Your task to perform on an android device: install app "Duolingo: language lessons" Image 0: 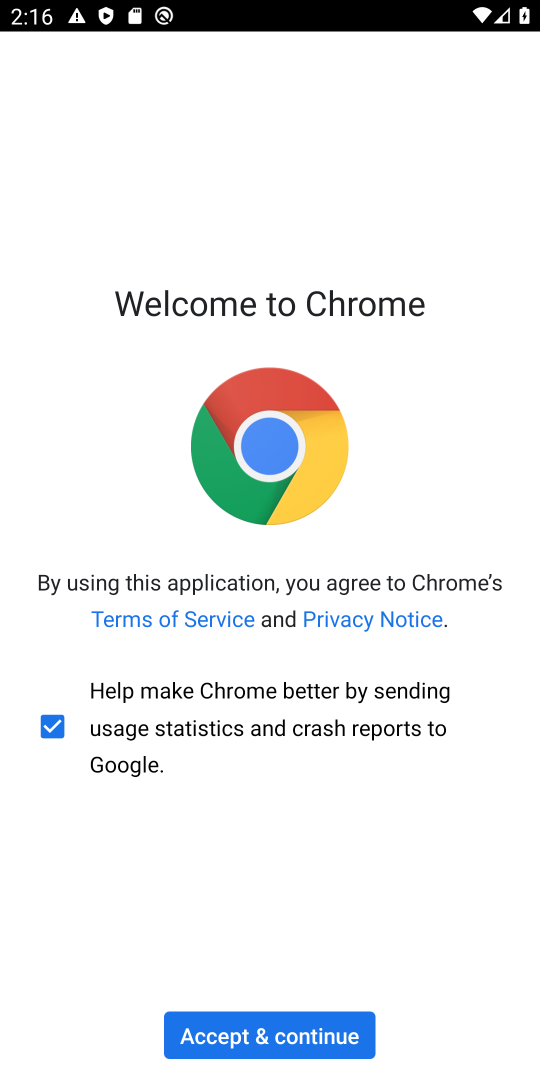
Step 0: press home button
Your task to perform on an android device: install app "Duolingo: language lessons" Image 1: 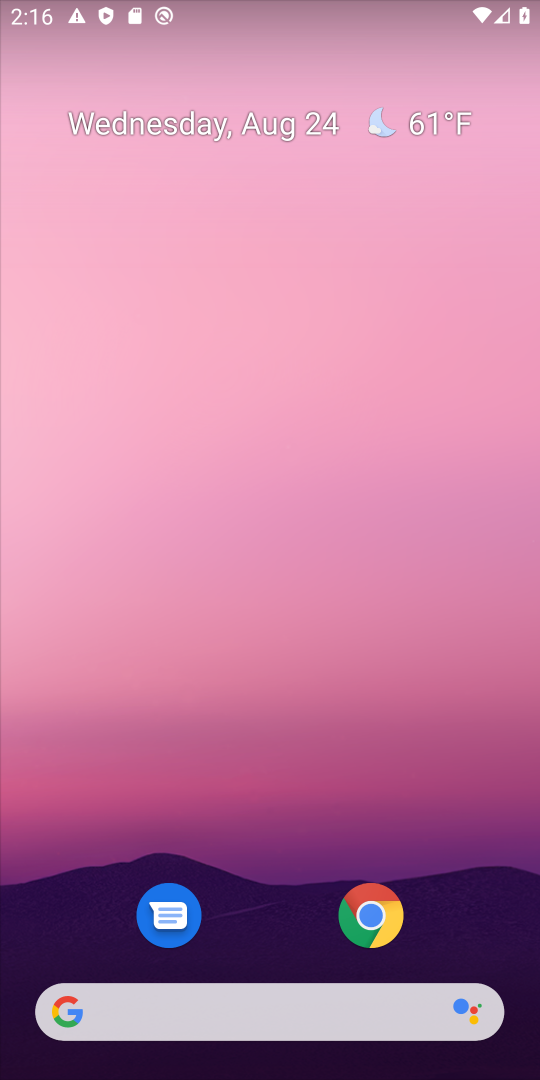
Step 1: drag from (281, 863) to (316, 127)
Your task to perform on an android device: install app "Duolingo: language lessons" Image 2: 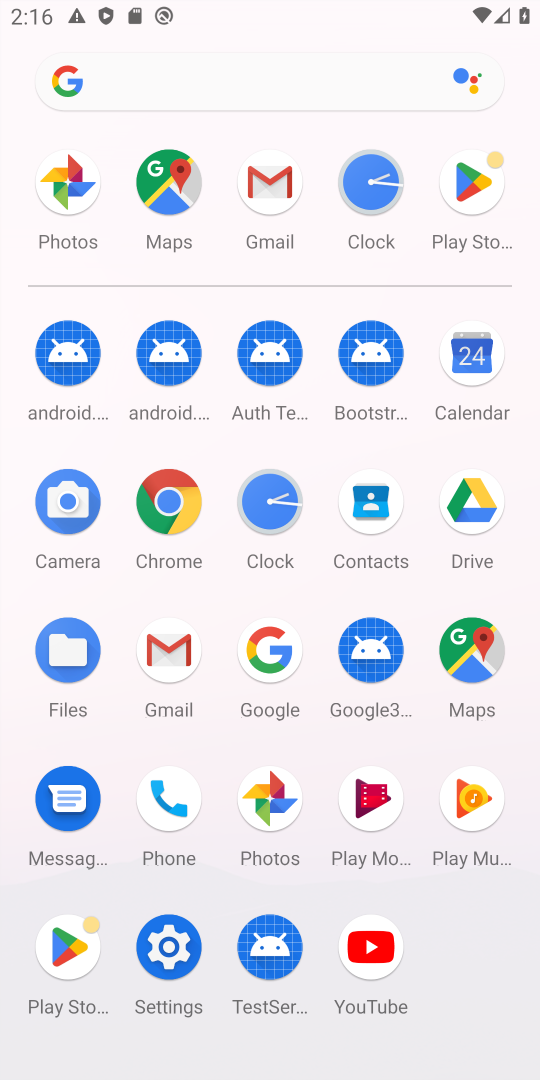
Step 2: click (462, 210)
Your task to perform on an android device: install app "Duolingo: language lessons" Image 3: 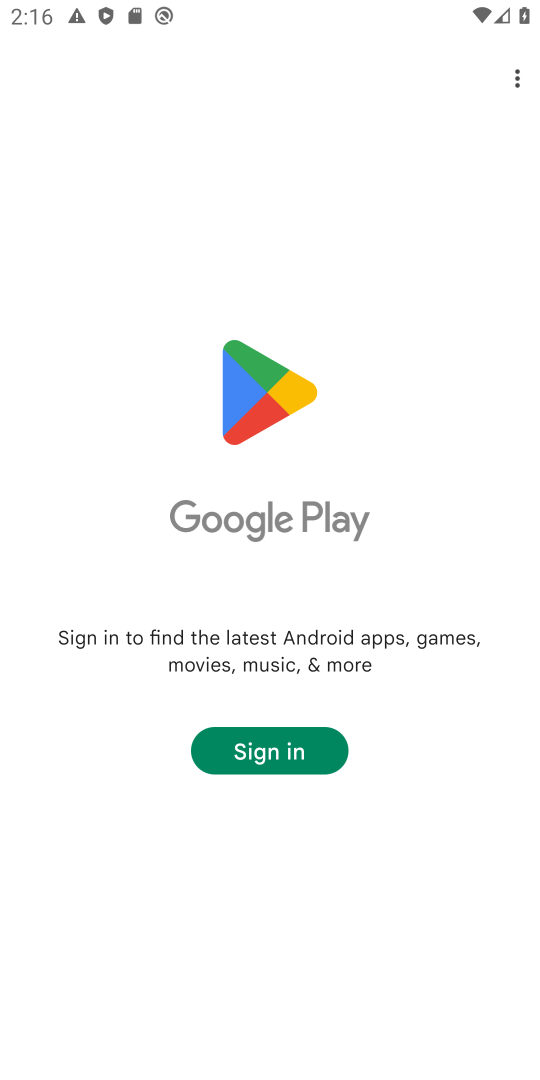
Step 3: task complete